Your task to perform on an android device: turn on bluetooth scan Image 0: 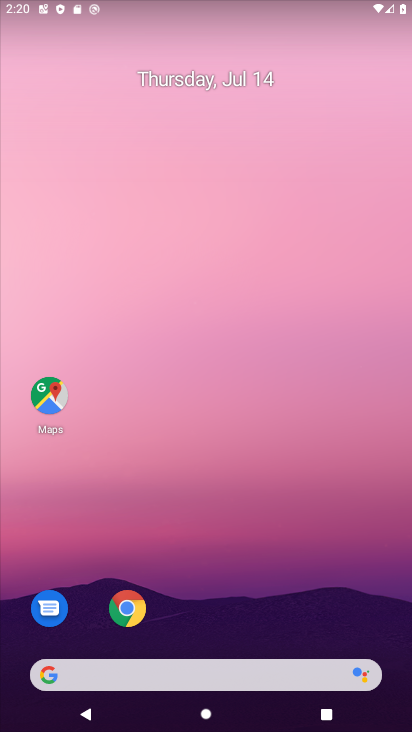
Step 0: drag from (229, 604) to (274, 10)
Your task to perform on an android device: turn on bluetooth scan Image 1: 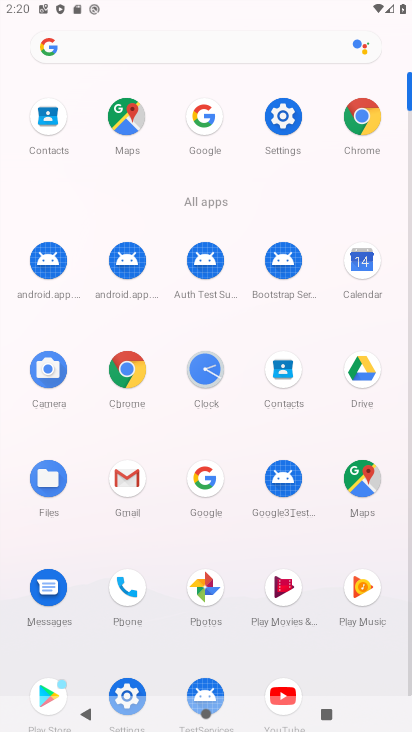
Step 1: click (288, 120)
Your task to perform on an android device: turn on bluetooth scan Image 2: 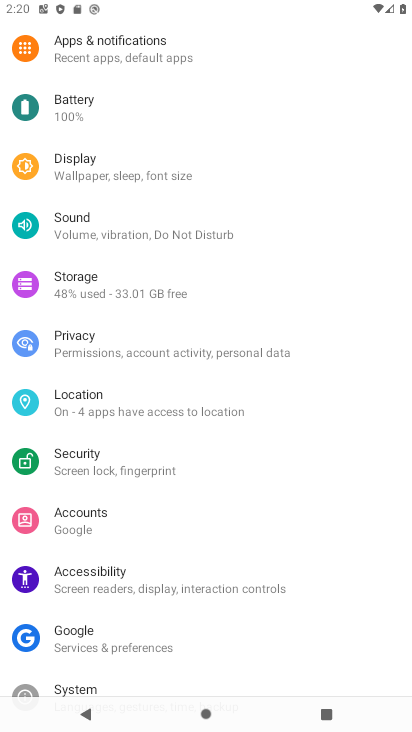
Step 2: drag from (278, 169) to (279, 644)
Your task to perform on an android device: turn on bluetooth scan Image 3: 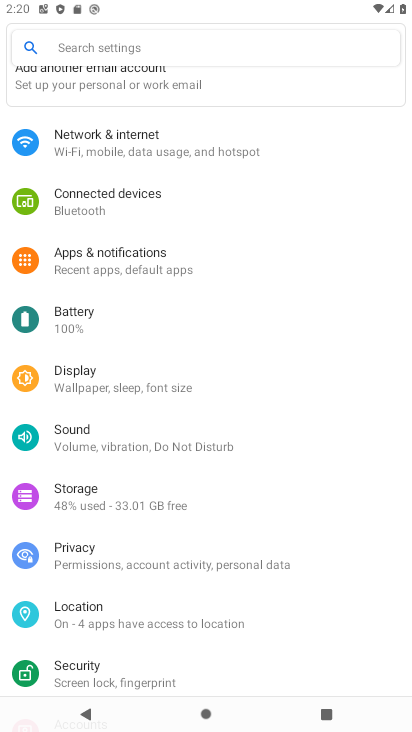
Step 3: click (93, 200)
Your task to perform on an android device: turn on bluetooth scan Image 4: 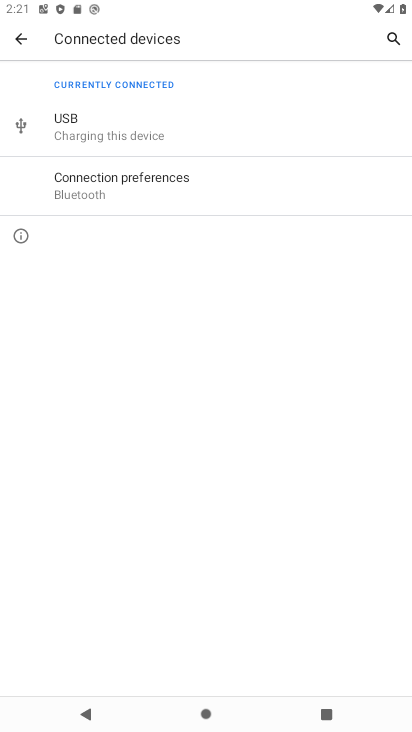
Step 4: click (137, 184)
Your task to perform on an android device: turn on bluetooth scan Image 5: 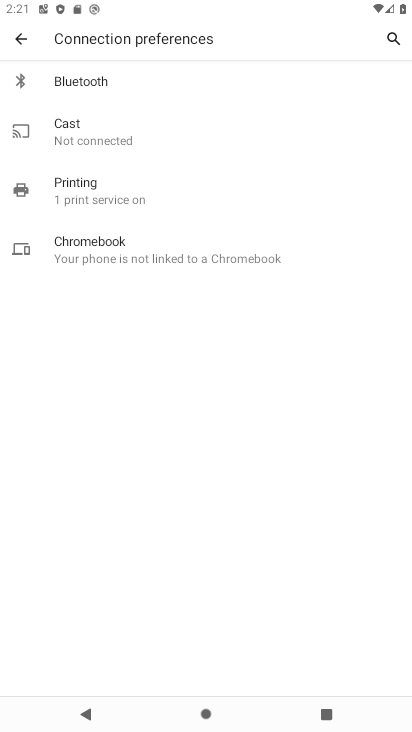
Step 5: click (80, 86)
Your task to perform on an android device: turn on bluetooth scan Image 6: 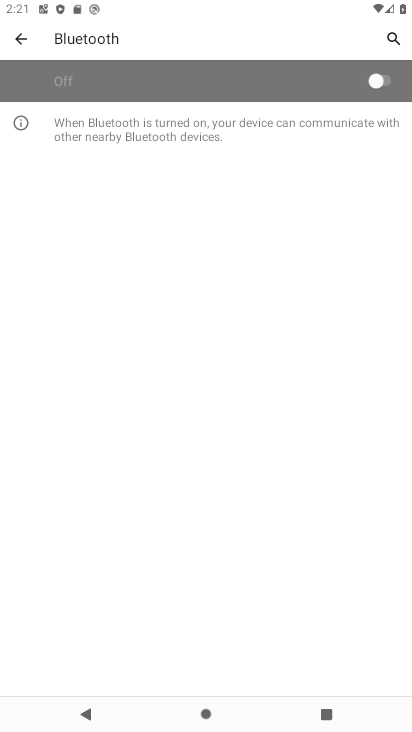
Step 6: click (374, 78)
Your task to perform on an android device: turn on bluetooth scan Image 7: 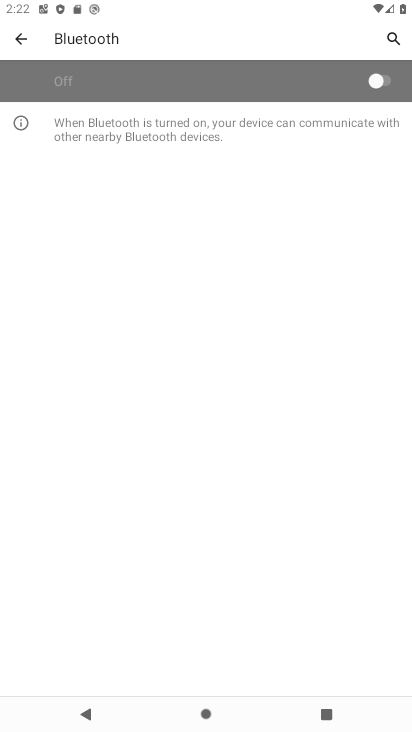
Step 7: task complete